Your task to perform on an android device: star an email in the gmail app Image 0: 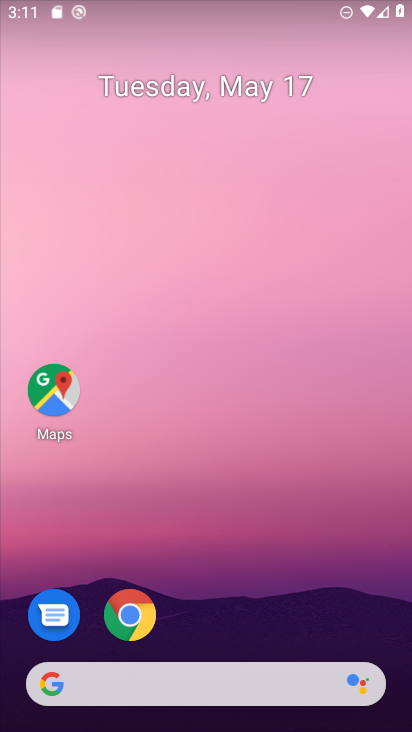
Step 0: drag from (209, 722) to (214, 223)
Your task to perform on an android device: star an email in the gmail app Image 1: 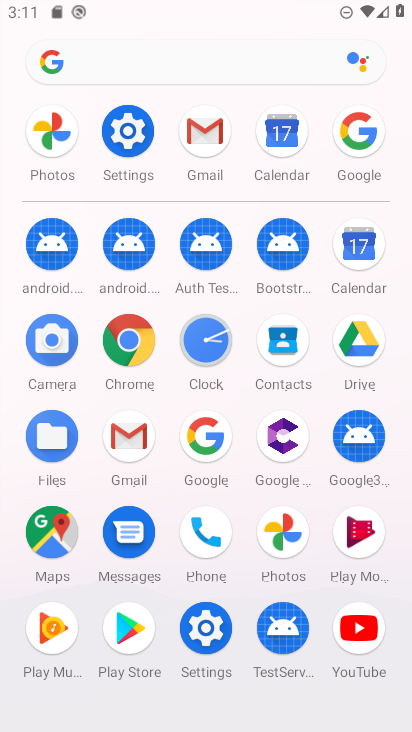
Step 1: click (136, 437)
Your task to perform on an android device: star an email in the gmail app Image 2: 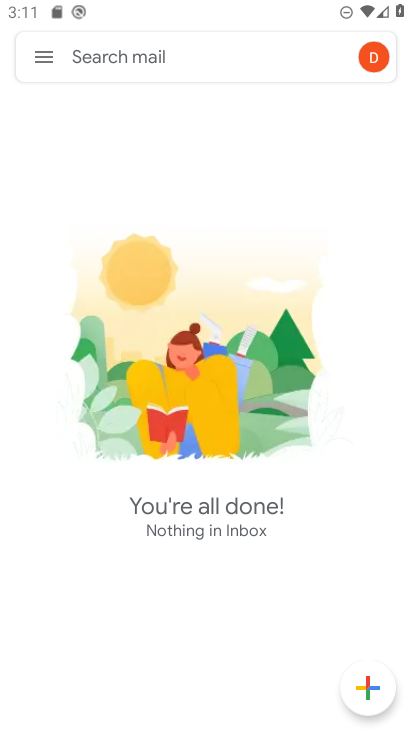
Step 2: task complete